Your task to perform on an android device: Check the news Image 0: 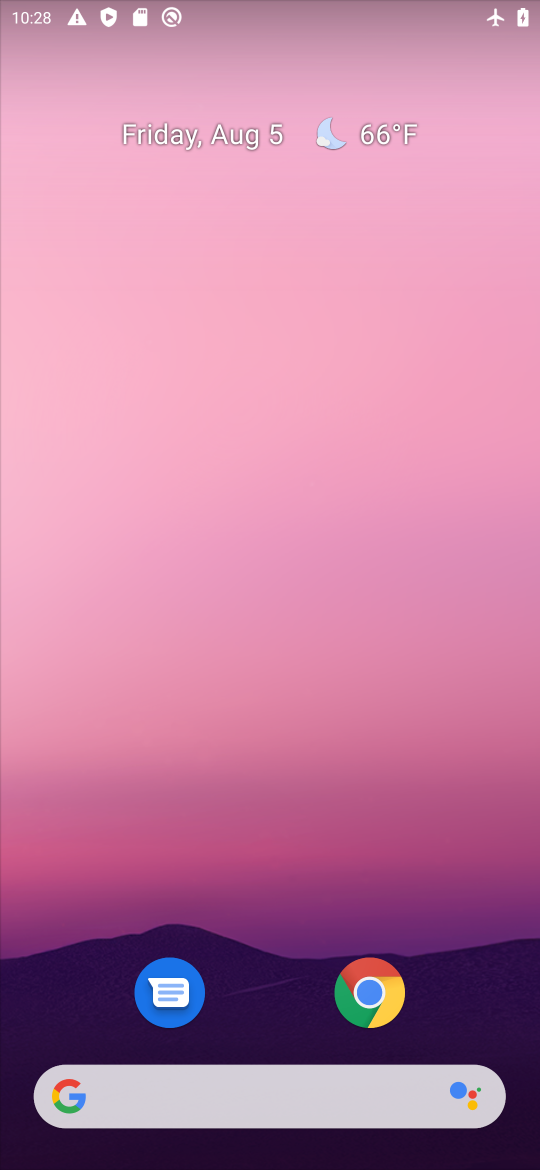
Step 0: drag from (347, 762) to (425, 281)
Your task to perform on an android device: Check the news Image 1: 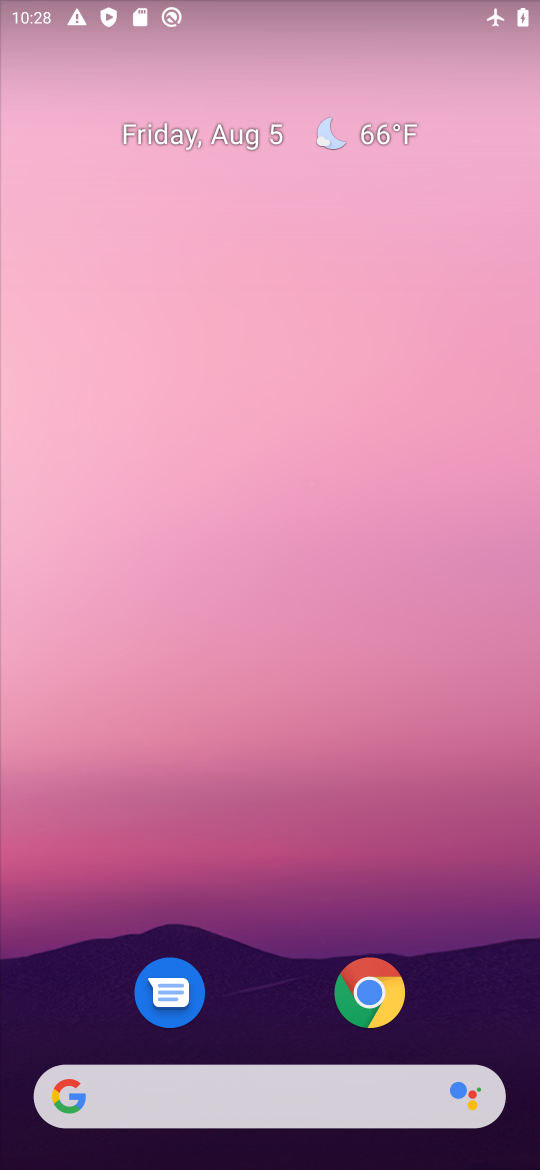
Step 1: drag from (305, 907) to (419, 244)
Your task to perform on an android device: Check the news Image 2: 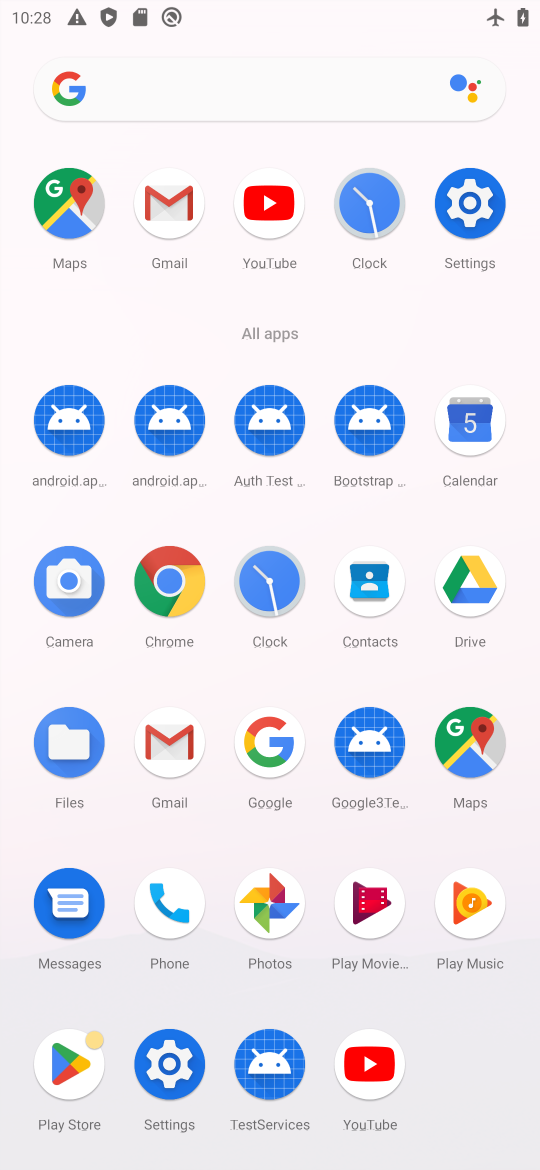
Step 2: click (274, 757)
Your task to perform on an android device: Check the news Image 3: 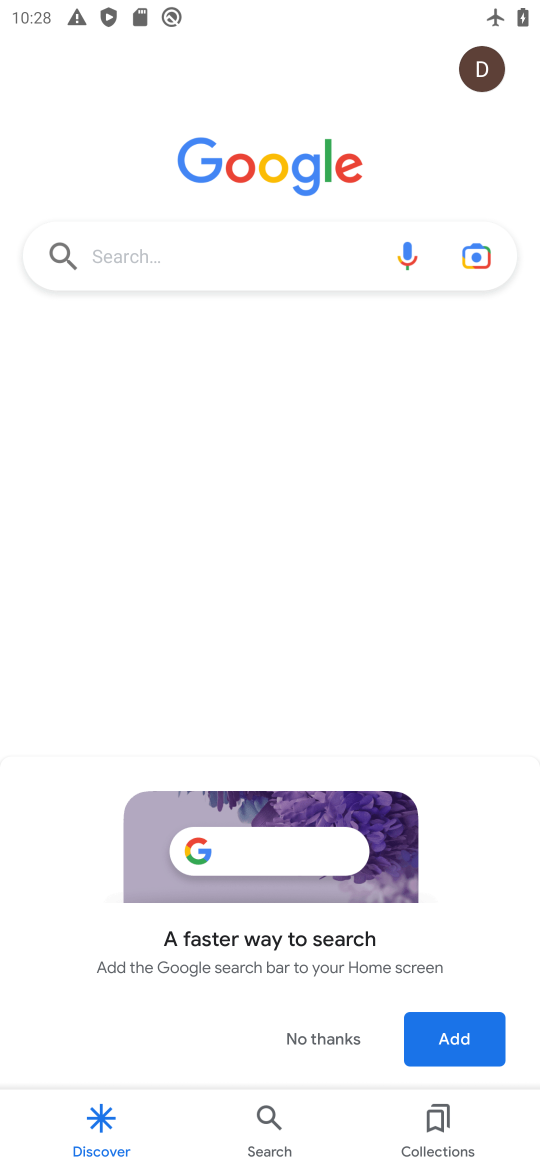
Step 3: click (148, 258)
Your task to perform on an android device: Check the news Image 4: 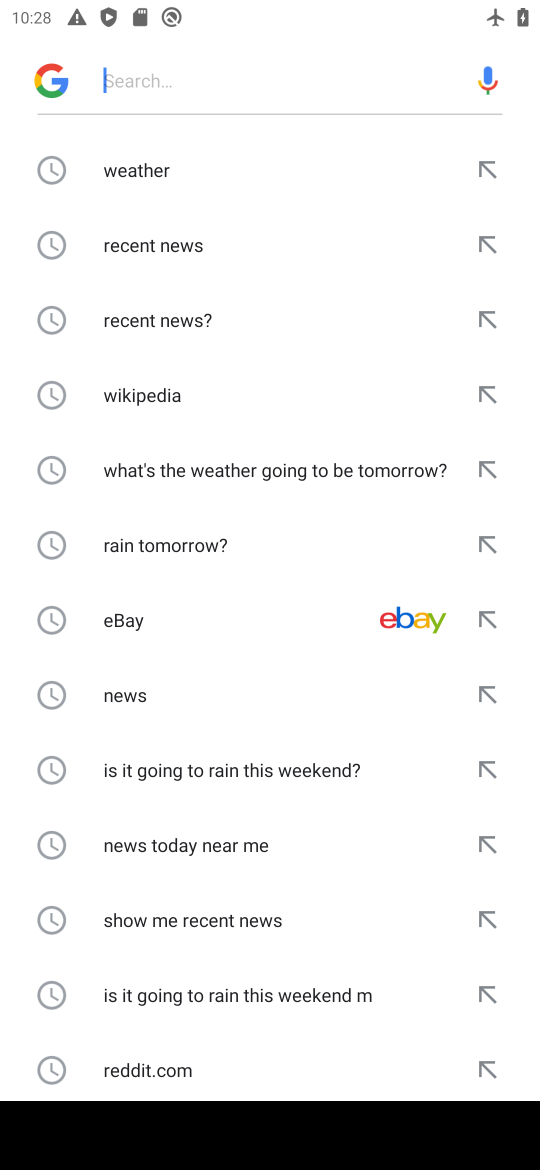
Step 4: click (179, 697)
Your task to perform on an android device: Check the news Image 5: 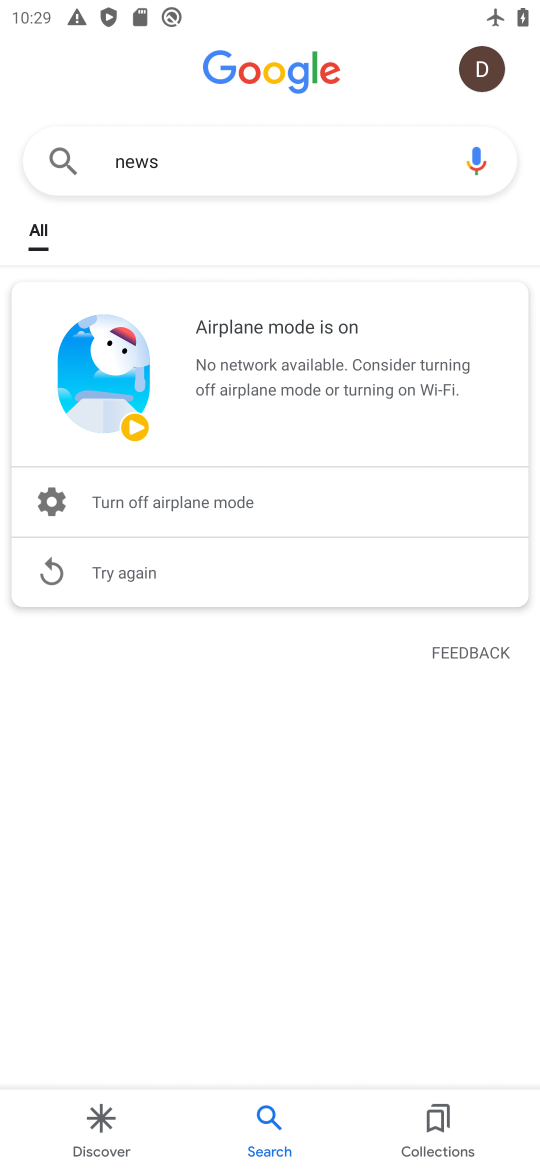
Step 5: task complete